Your task to perform on an android device: Open settings Image 0: 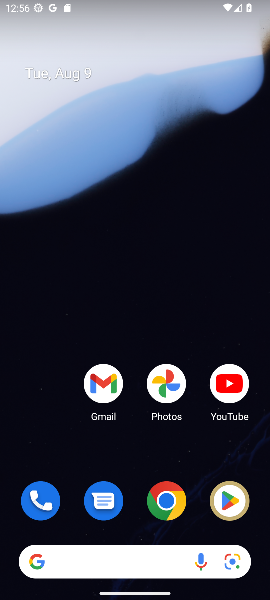
Step 0: drag from (133, 445) to (180, 4)
Your task to perform on an android device: Open settings Image 1: 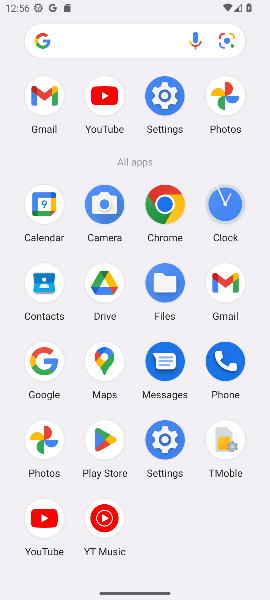
Step 1: click (164, 439)
Your task to perform on an android device: Open settings Image 2: 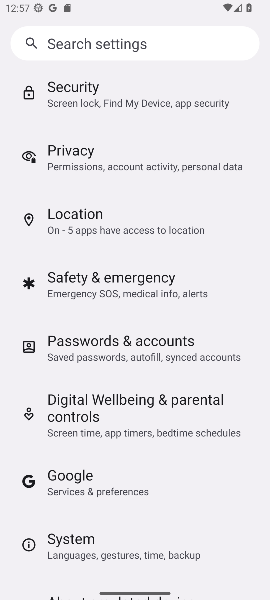
Step 2: task complete